Your task to perform on an android device: turn off sleep mode Image 0: 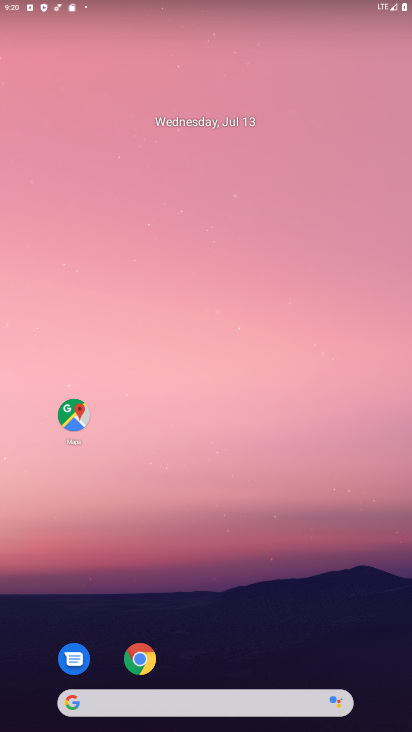
Step 0: drag from (352, 417) to (370, 68)
Your task to perform on an android device: turn off sleep mode Image 1: 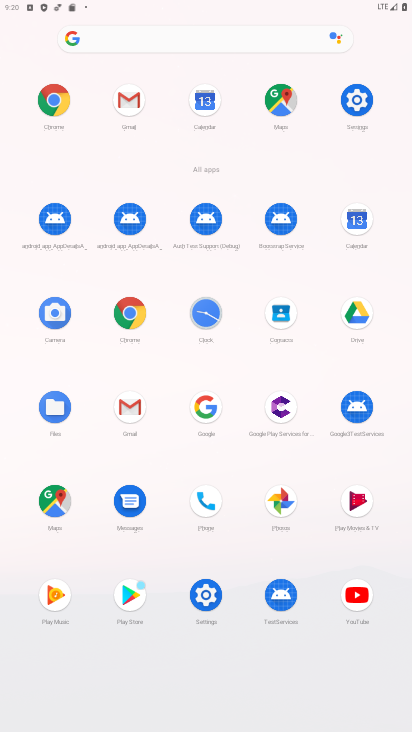
Step 1: click (206, 596)
Your task to perform on an android device: turn off sleep mode Image 2: 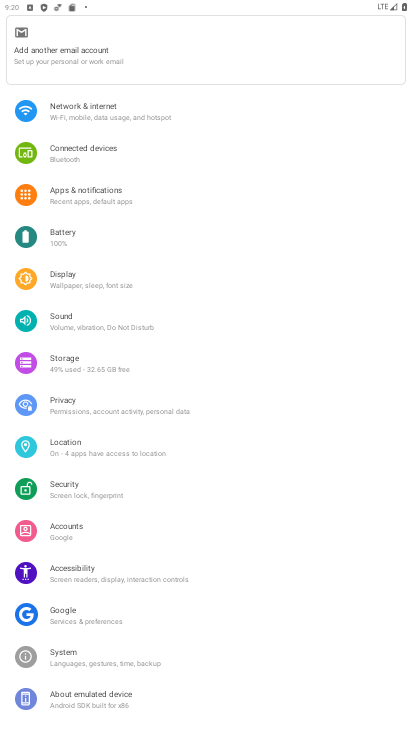
Step 2: click (61, 279)
Your task to perform on an android device: turn off sleep mode Image 3: 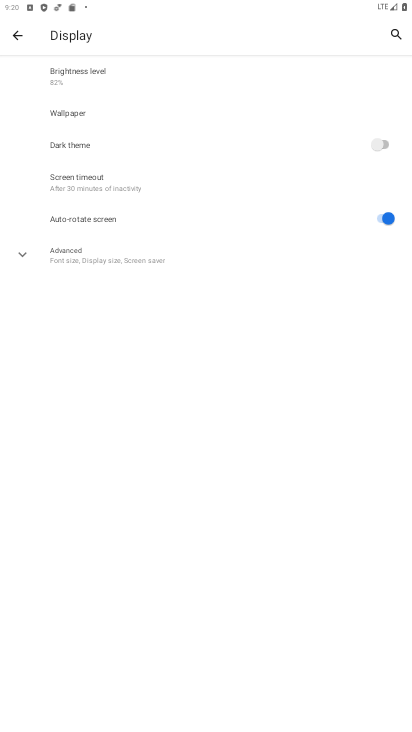
Step 3: click (22, 253)
Your task to perform on an android device: turn off sleep mode Image 4: 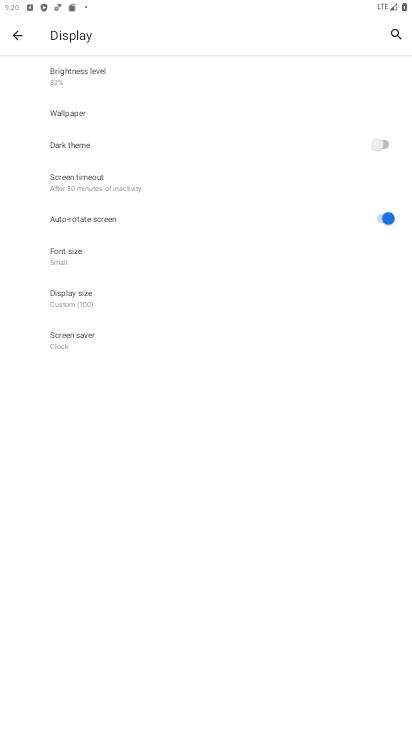
Step 4: task complete